Your task to perform on an android device: What's the weather going to be this weekend? Image 0: 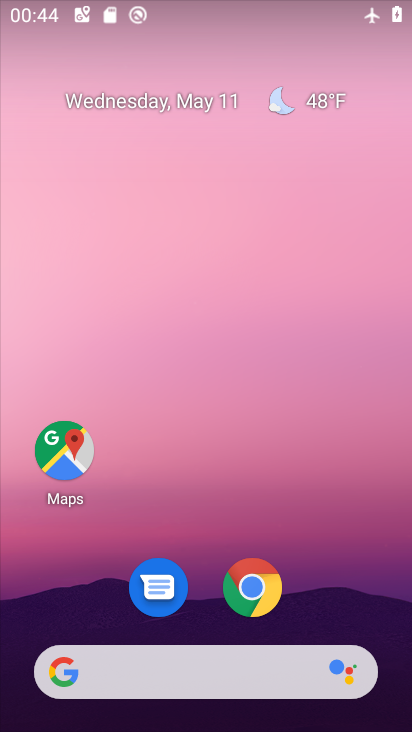
Step 0: click (365, 485)
Your task to perform on an android device: What's the weather going to be this weekend? Image 1: 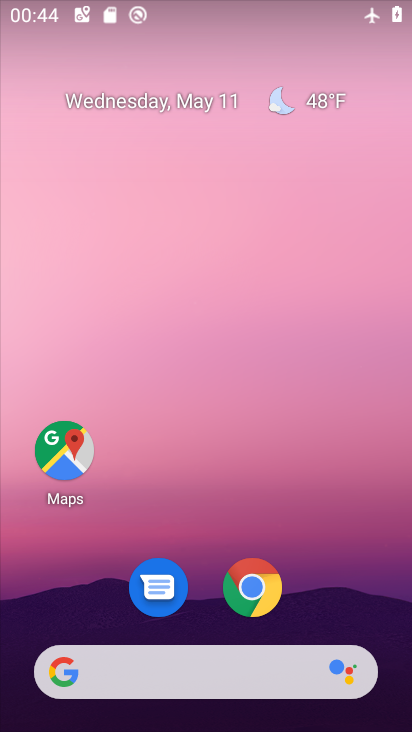
Step 1: drag from (352, 613) to (245, 251)
Your task to perform on an android device: What's the weather going to be this weekend? Image 2: 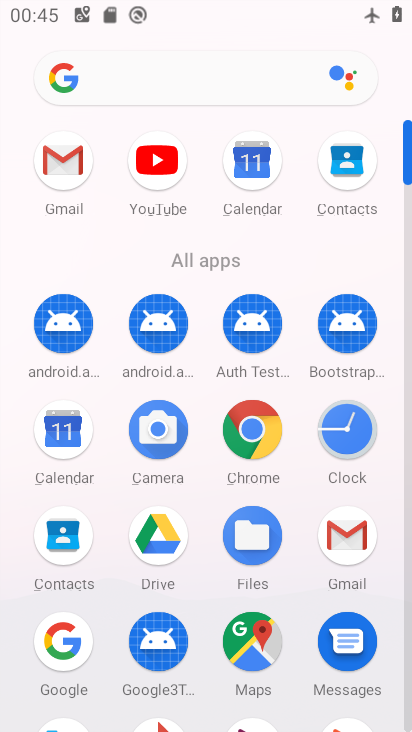
Step 2: press home button
Your task to perform on an android device: What's the weather going to be this weekend? Image 3: 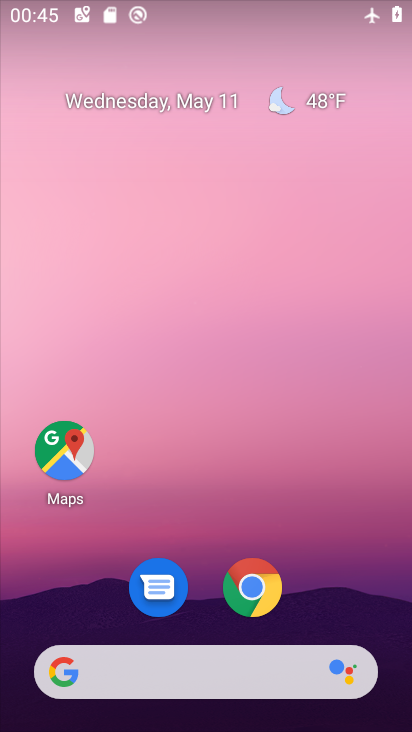
Step 3: drag from (24, 228) to (408, 358)
Your task to perform on an android device: What's the weather going to be this weekend? Image 4: 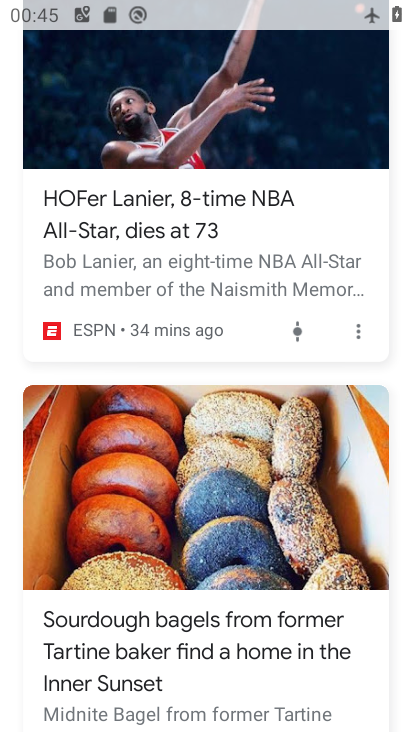
Step 4: drag from (247, 201) to (321, 521)
Your task to perform on an android device: What's the weather going to be this weekend? Image 5: 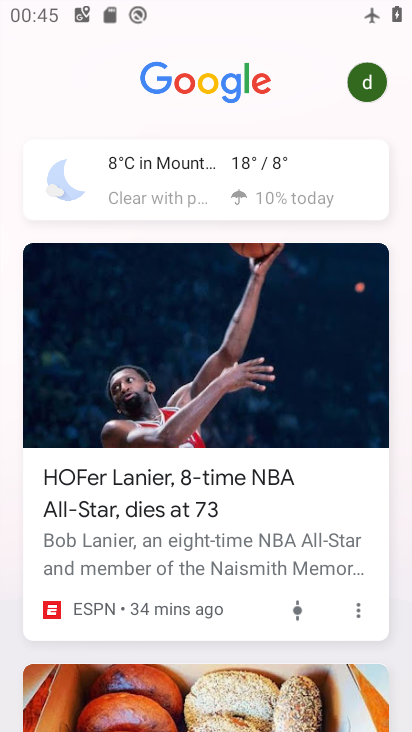
Step 5: click (254, 165)
Your task to perform on an android device: What's the weather going to be this weekend? Image 6: 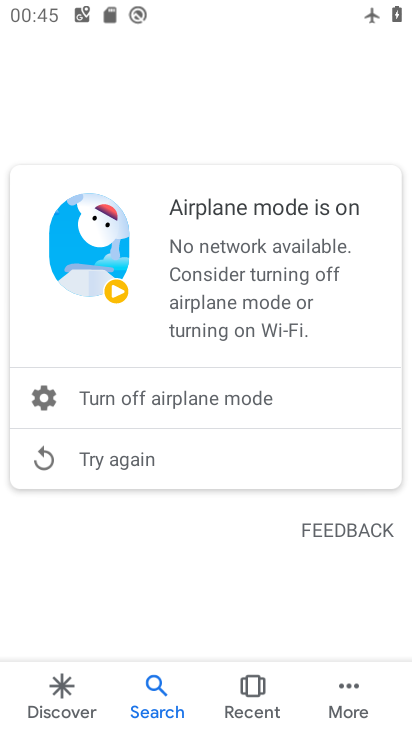
Step 6: click (59, 695)
Your task to perform on an android device: What's the weather going to be this weekend? Image 7: 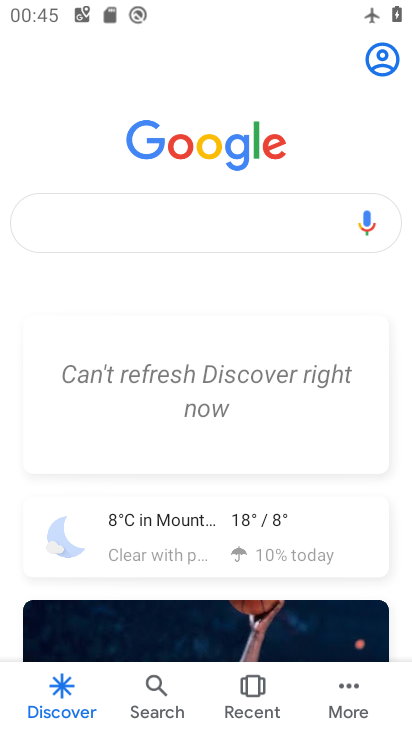
Step 7: click (282, 519)
Your task to perform on an android device: What's the weather going to be this weekend? Image 8: 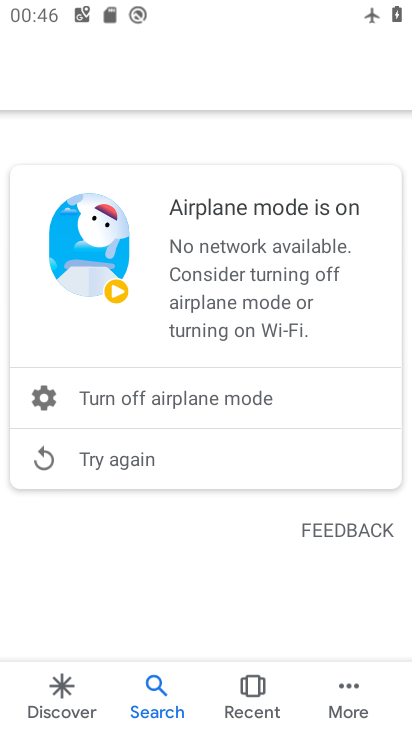
Step 8: click (350, 5)
Your task to perform on an android device: What's the weather going to be this weekend? Image 9: 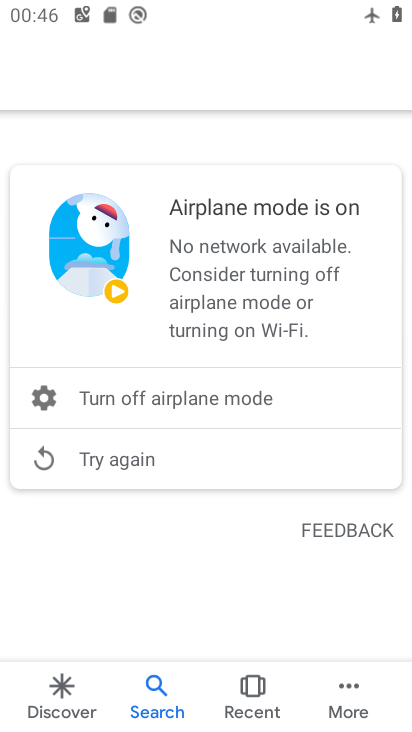
Step 9: task complete